Your task to perform on an android device: check android version Image 0: 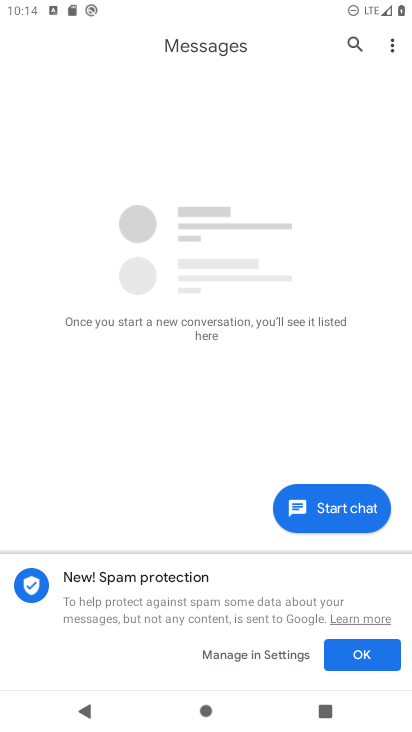
Step 0: press home button
Your task to perform on an android device: check android version Image 1: 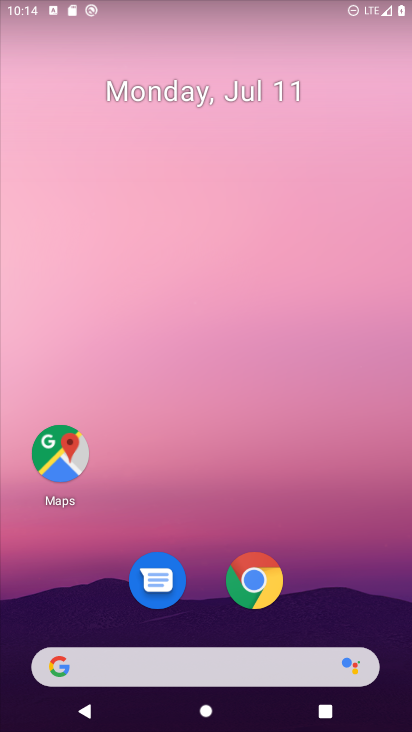
Step 1: drag from (280, 507) to (238, 12)
Your task to perform on an android device: check android version Image 2: 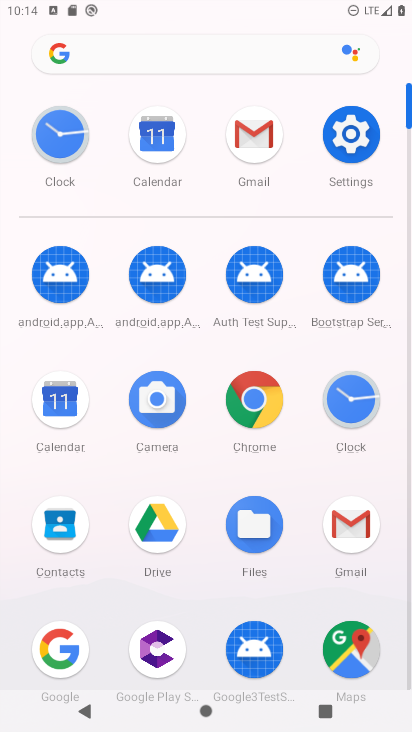
Step 2: click (356, 136)
Your task to perform on an android device: check android version Image 3: 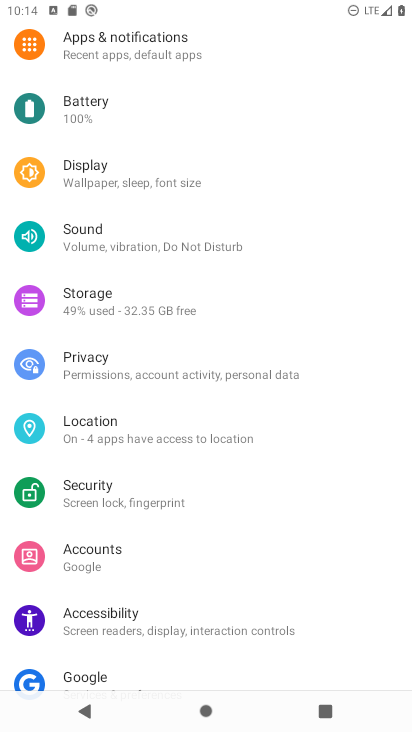
Step 3: drag from (200, 518) to (200, 149)
Your task to perform on an android device: check android version Image 4: 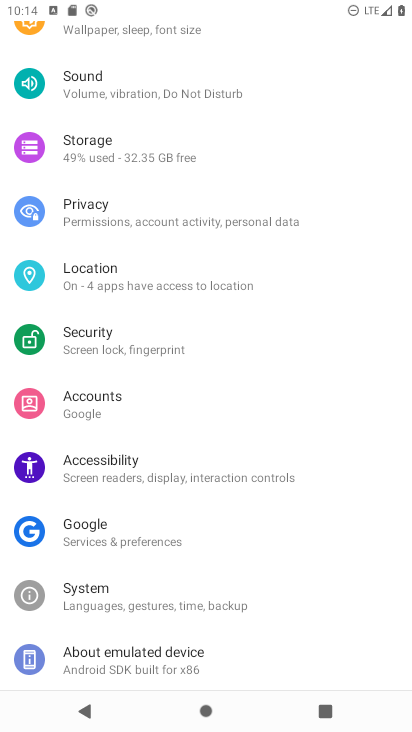
Step 4: click (171, 663)
Your task to perform on an android device: check android version Image 5: 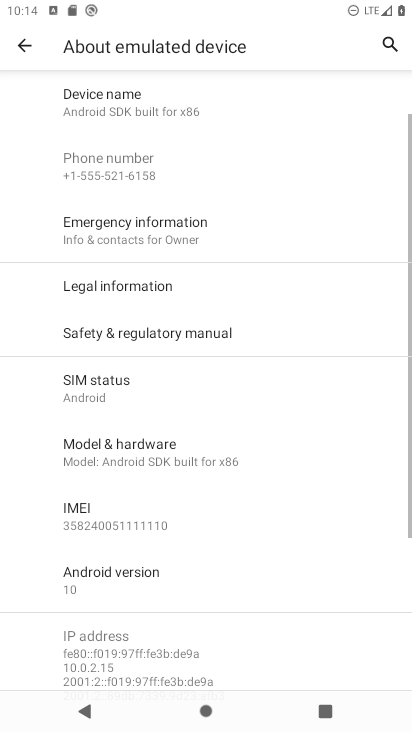
Step 5: click (131, 567)
Your task to perform on an android device: check android version Image 6: 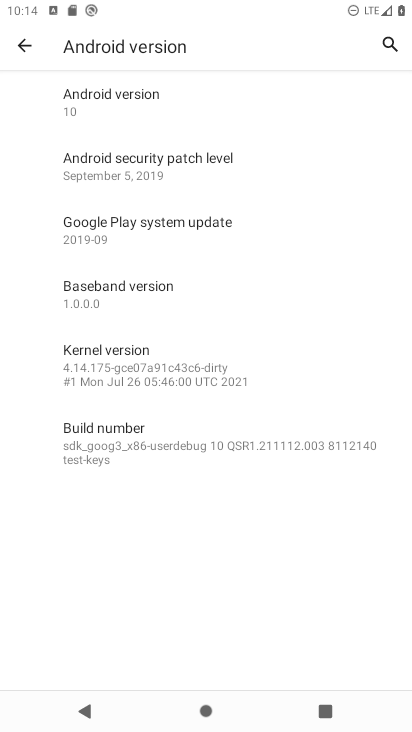
Step 6: task complete